Your task to perform on an android device: Show me the alarms in the clock app Image 0: 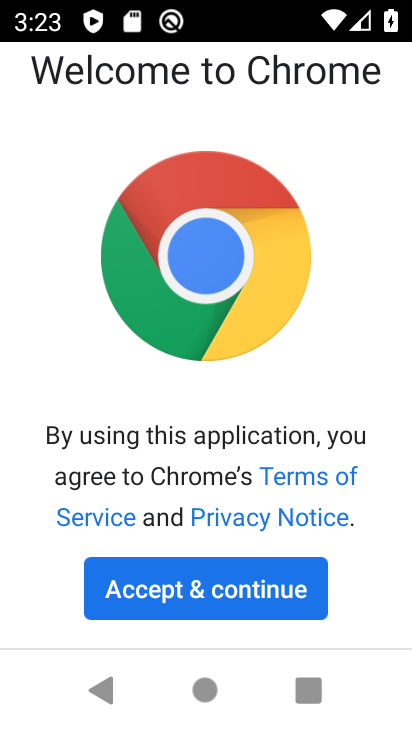
Step 0: press back button
Your task to perform on an android device: Show me the alarms in the clock app Image 1: 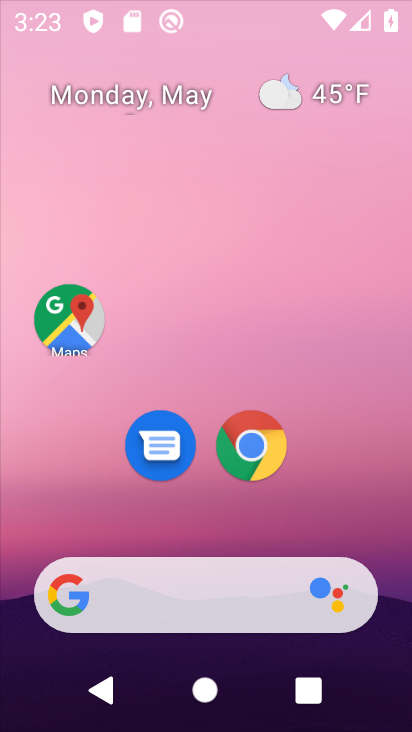
Step 1: press home button
Your task to perform on an android device: Show me the alarms in the clock app Image 2: 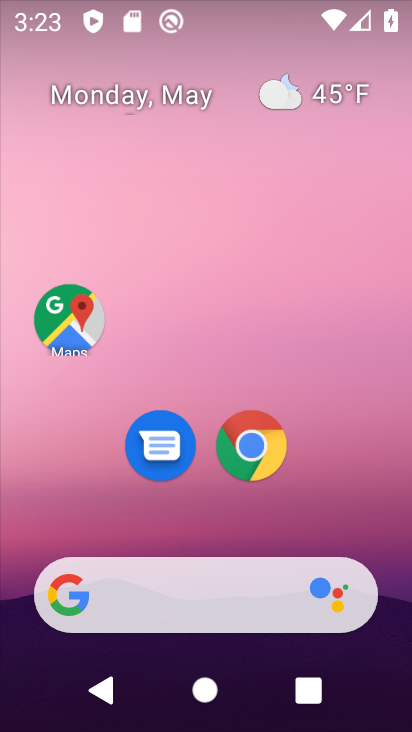
Step 2: drag from (151, 538) to (187, 299)
Your task to perform on an android device: Show me the alarms in the clock app Image 3: 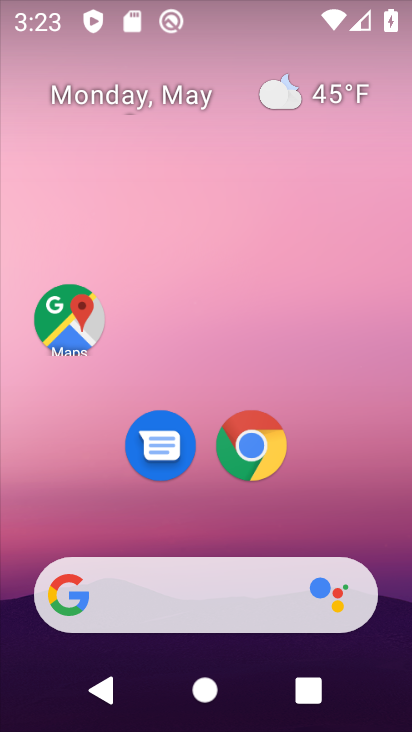
Step 3: drag from (238, 551) to (284, 337)
Your task to perform on an android device: Show me the alarms in the clock app Image 4: 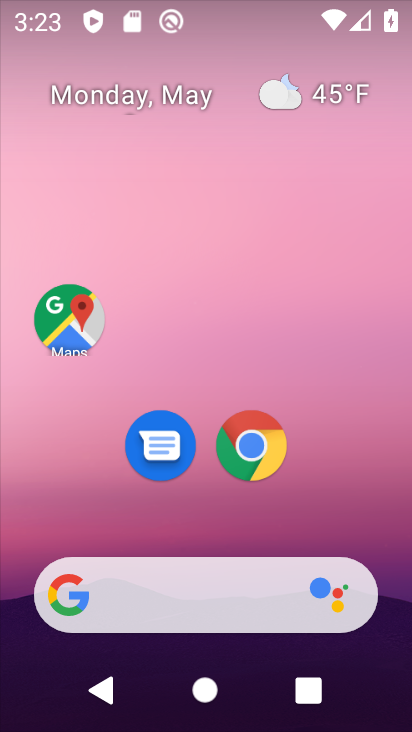
Step 4: drag from (294, 523) to (354, 15)
Your task to perform on an android device: Show me the alarms in the clock app Image 5: 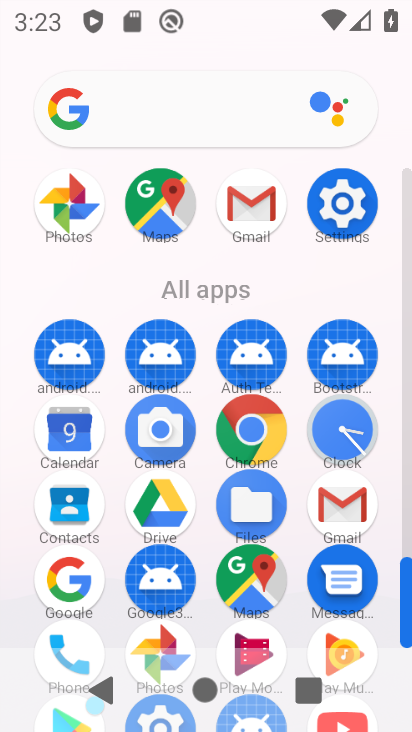
Step 5: click (343, 426)
Your task to perform on an android device: Show me the alarms in the clock app Image 6: 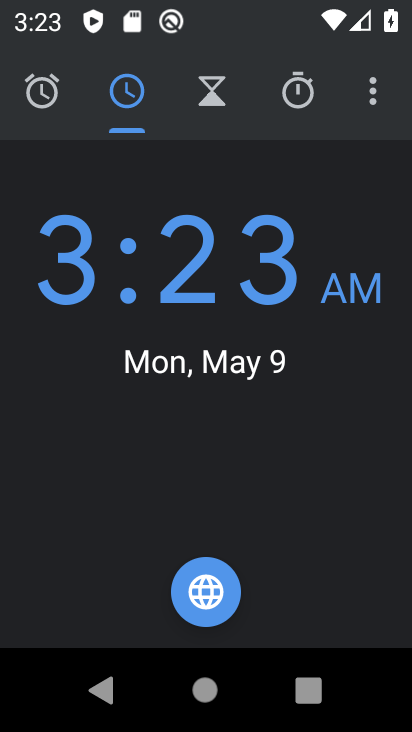
Step 6: click (64, 74)
Your task to perform on an android device: Show me the alarms in the clock app Image 7: 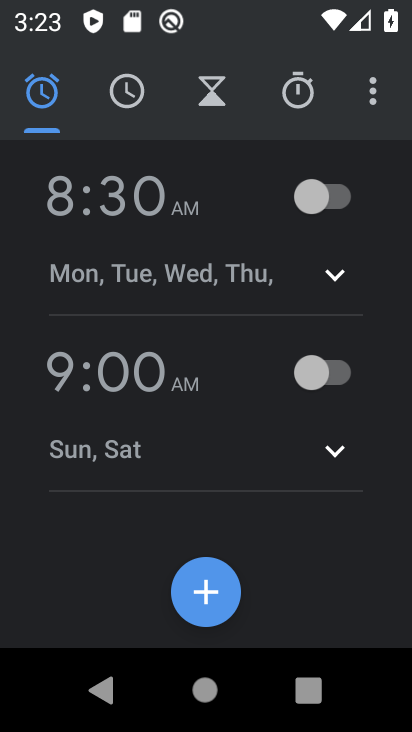
Step 7: task complete